Your task to perform on an android device: check out phone information Image 0: 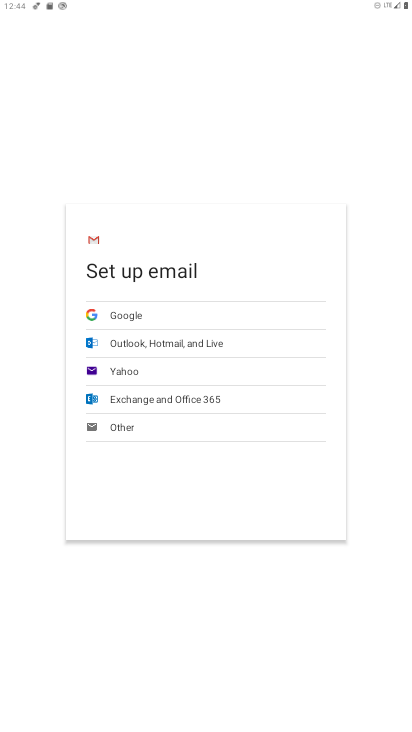
Step 0: press home button
Your task to perform on an android device: check out phone information Image 1: 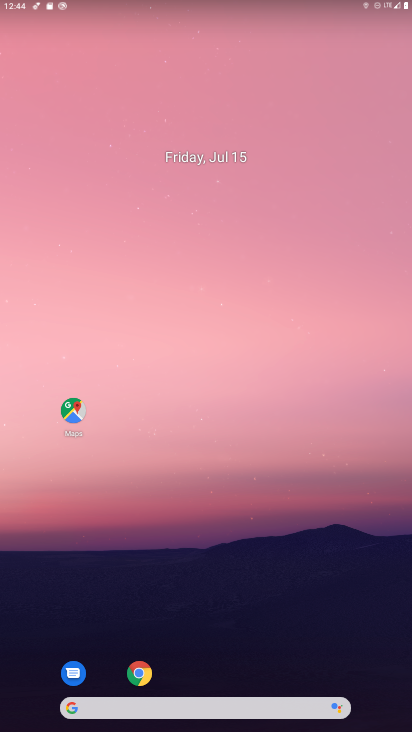
Step 1: drag from (387, 692) to (234, 59)
Your task to perform on an android device: check out phone information Image 2: 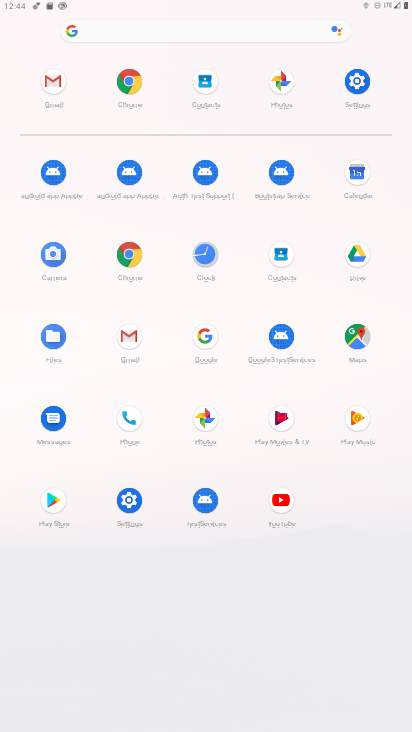
Step 2: click (359, 83)
Your task to perform on an android device: check out phone information Image 3: 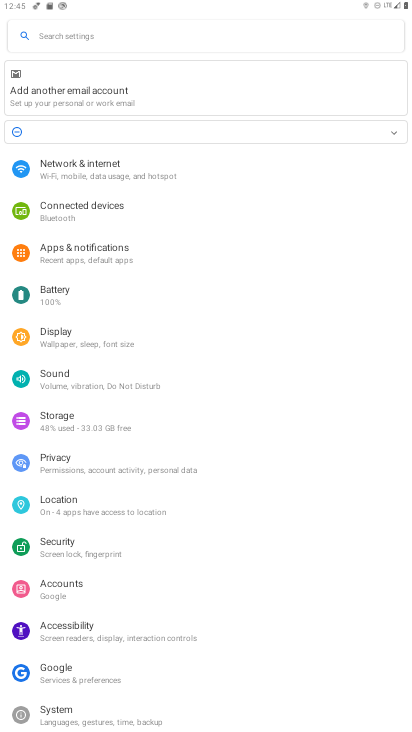
Step 3: drag from (181, 680) to (187, 393)
Your task to perform on an android device: check out phone information Image 4: 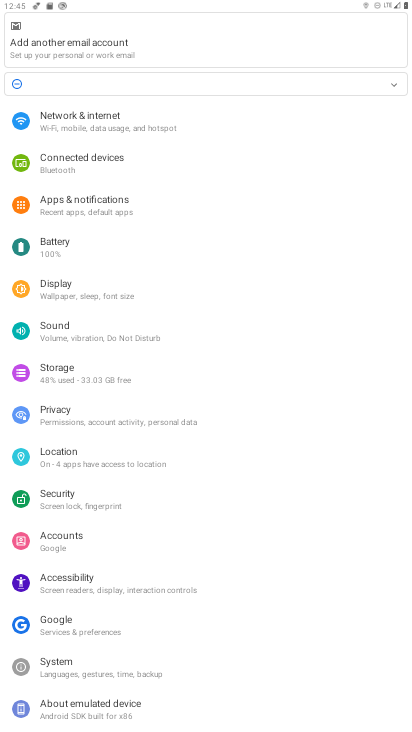
Step 4: click (44, 698)
Your task to perform on an android device: check out phone information Image 5: 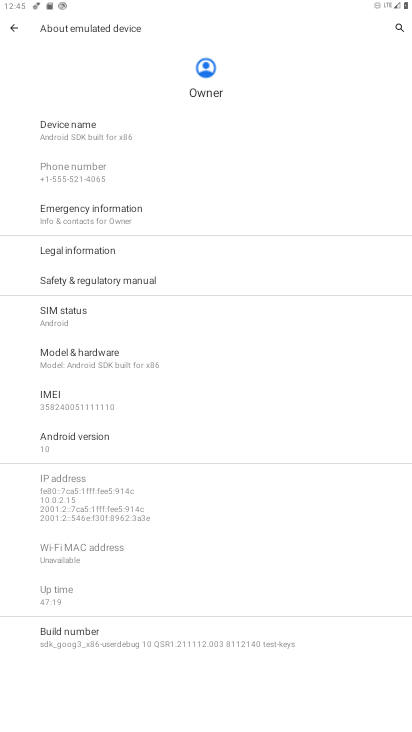
Step 5: task complete